Your task to perform on an android device: toggle notification dots Image 0: 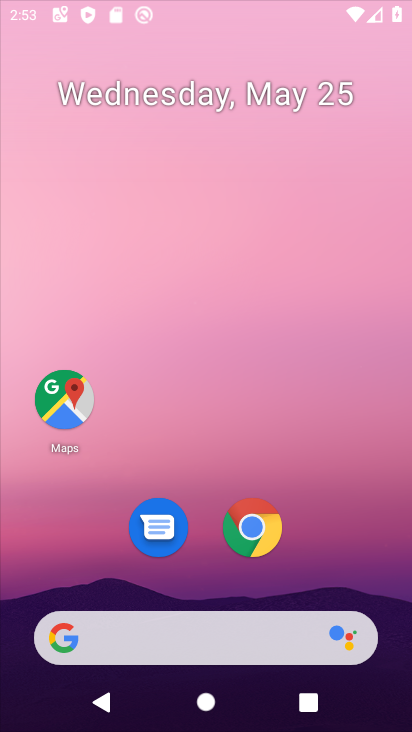
Step 0: click (235, 77)
Your task to perform on an android device: toggle notification dots Image 1: 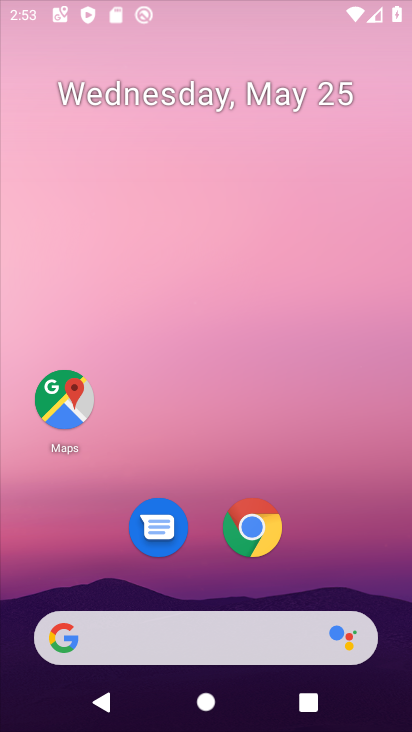
Step 1: drag from (203, 558) to (270, 77)
Your task to perform on an android device: toggle notification dots Image 2: 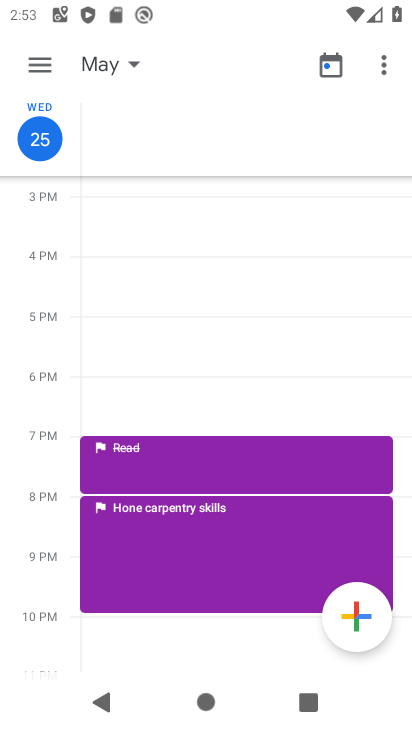
Step 2: press home button
Your task to perform on an android device: toggle notification dots Image 3: 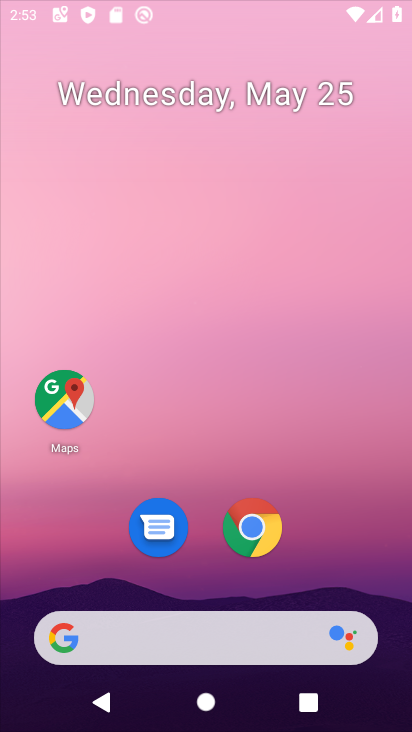
Step 3: drag from (182, 528) to (208, 63)
Your task to perform on an android device: toggle notification dots Image 4: 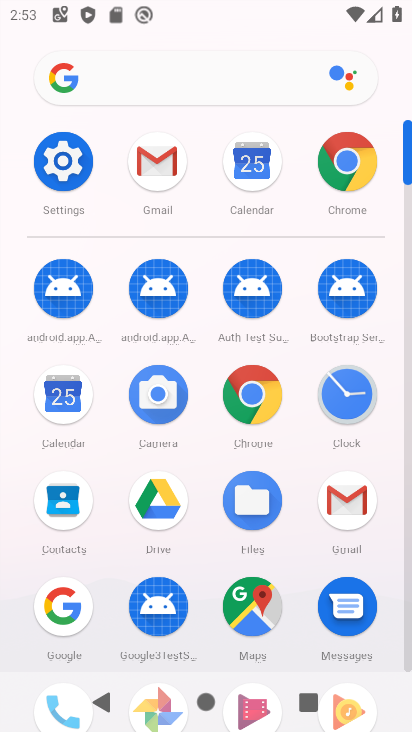
Step 4: click (57, 160)
Your task to perform on an android device: toggle notification dots Image 5: 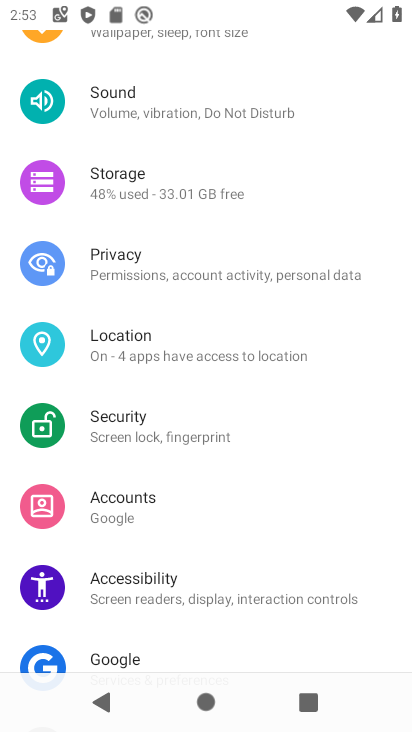
Step 5: drag from (184, 155) to (245, 609)
Your task to perform on an android device: toggle notification dots Image 6: 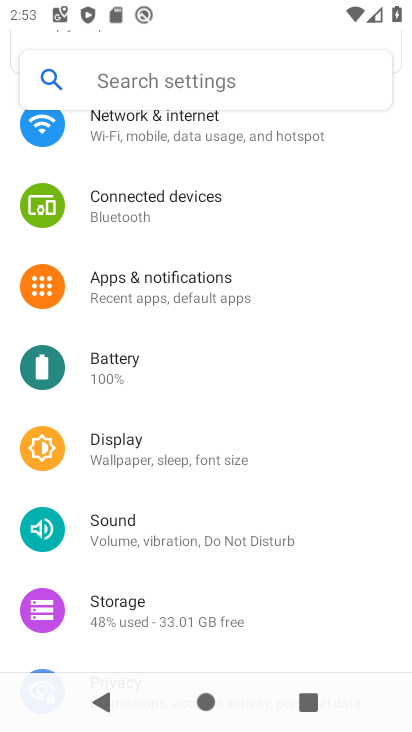
Step 6: click (182, 294)
Your task to perform on an android device: toggle notification dots Image 7: 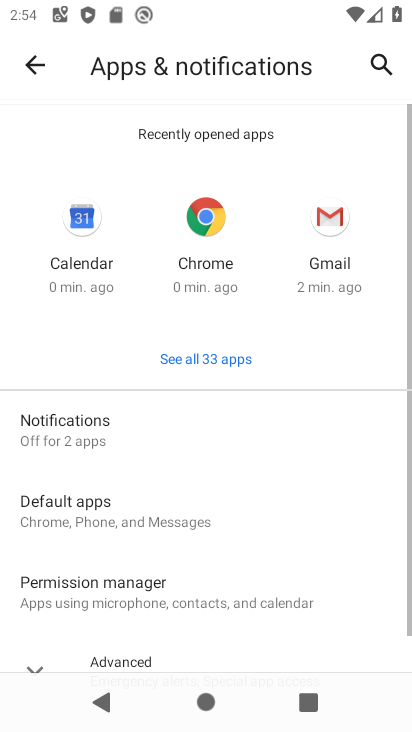
Step 7: drag from (177, 505) to (215, 230)
Your task to perform on an android device: toggle notification dots Image 8: 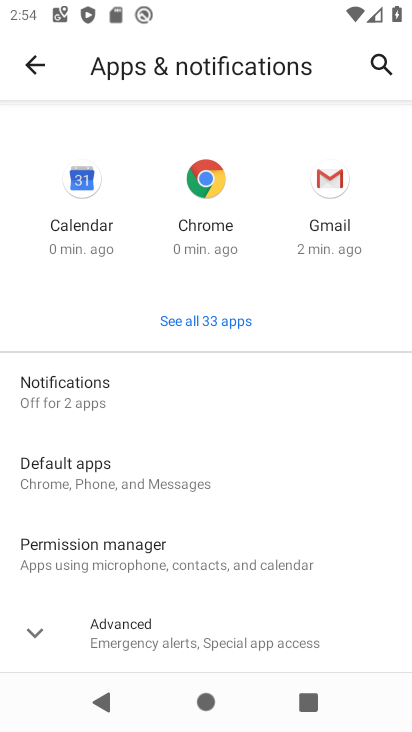
Step 8: click (156, 371)
Your task to perform on an android device: toggle notification dots Image 9: 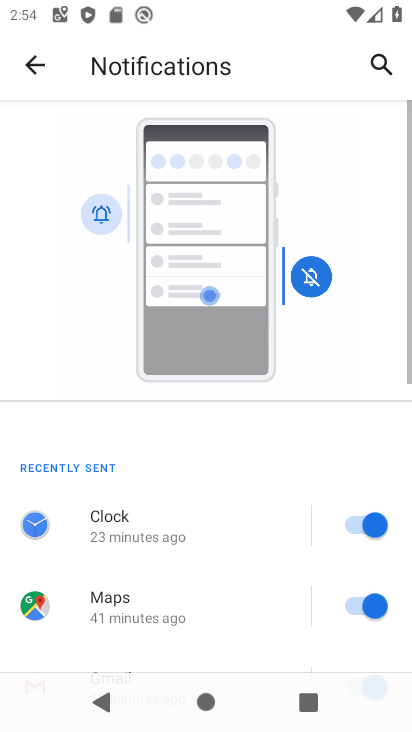
Step 9: drag from (223, 520) to (340, 143)
Your task to perform on an android device: toggle notification dots Image 10: 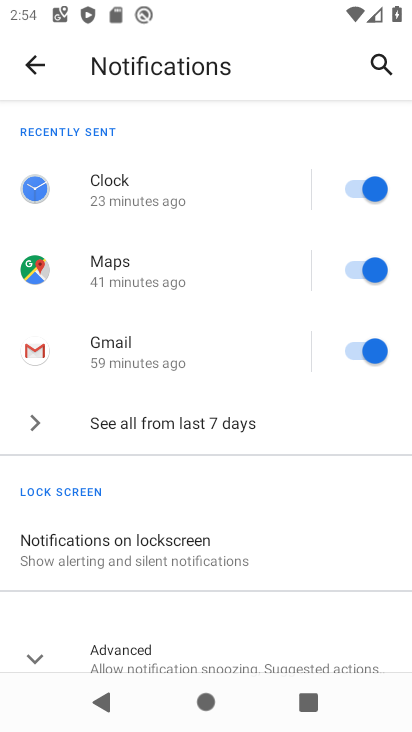
Step 10: drag from (206, 573) to (271, 171)
Your task to perform on an android device: toggle notification dots Image 11: 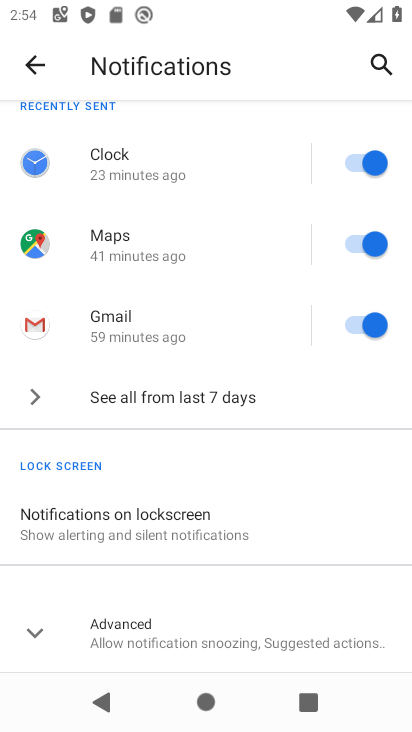
Step 11: click (148, 622)
Your task to perform on an android device: toggle notification dots Image 12: 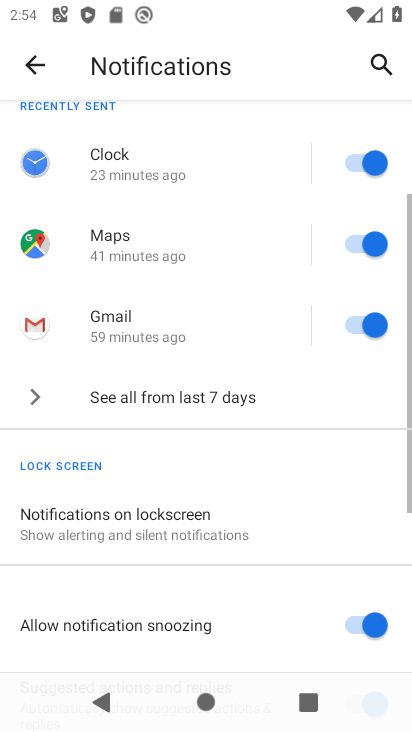
Step 12: drag from (185, 600) to (327, 109)
Your task to perform on an android device: toggle notification dots Image 13: 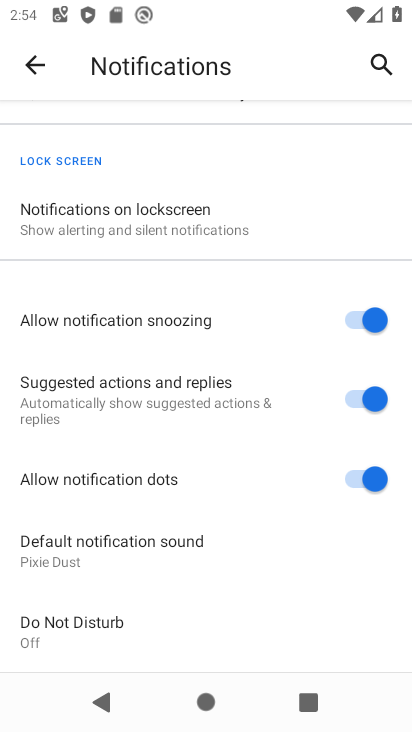
Step 13: drag from (215, 489) to (254, 200)
Your task to perform on an android device: toggle notification dots Image 14: 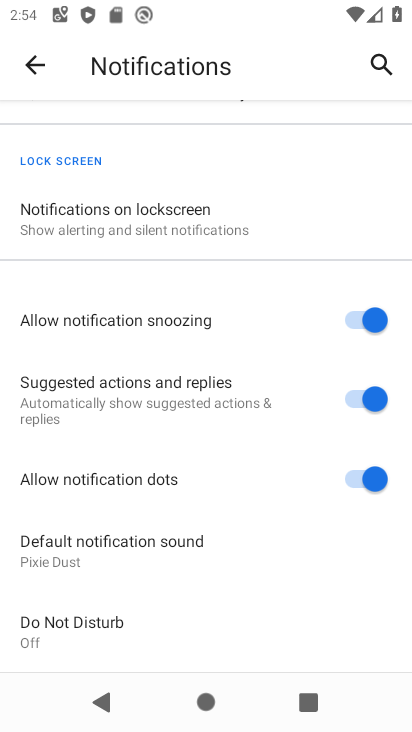
Step 14: drag from (229, 576) to (311, 291)
Your task to perform on an android device: toggle notification dots Image 15: 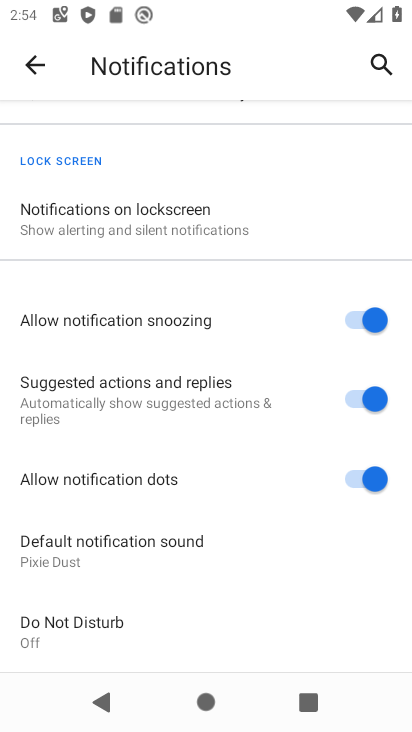
Step 15: click (368, 470)
Your task to perform on an android device: toggle notification dots Image 16: 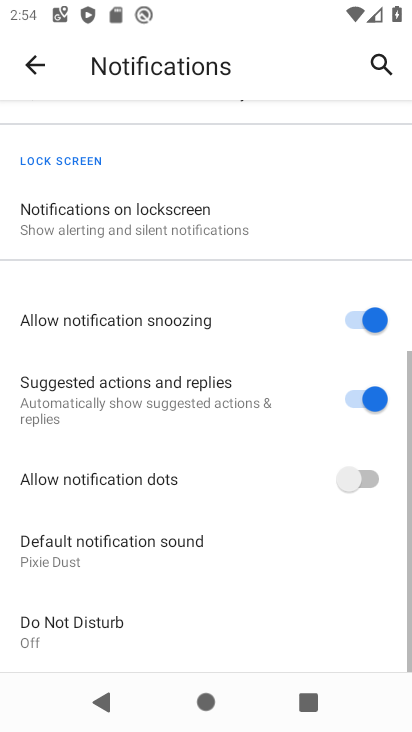
Step 16: task complete